Your task to perform on an android device: change the clock display to digital Image 0: 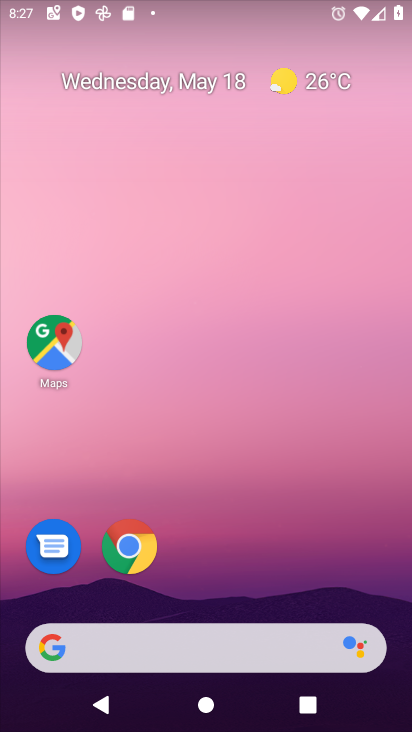
Step 0: drag from (392, 627) to (320, 33)
Your task to perform on an android device: change the clock display to digital Image 1: 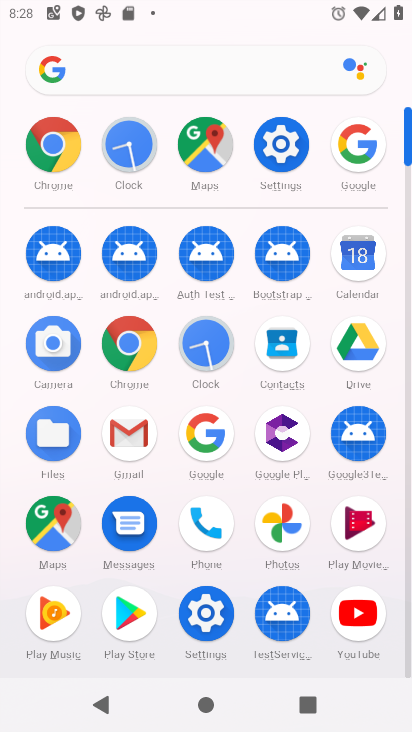
Step 1: click (206, 357)
Your task to perform on an android device: change the clock display to digital Image 2: 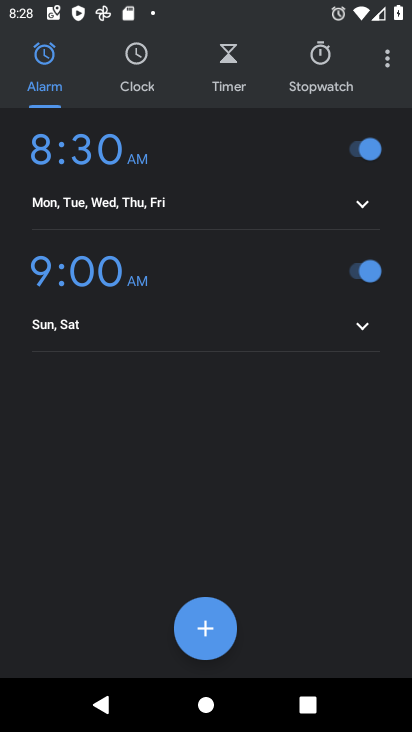
Step 2: click (391, 56)
Your task to perform on an android device: change the clock display to digital Image 3: 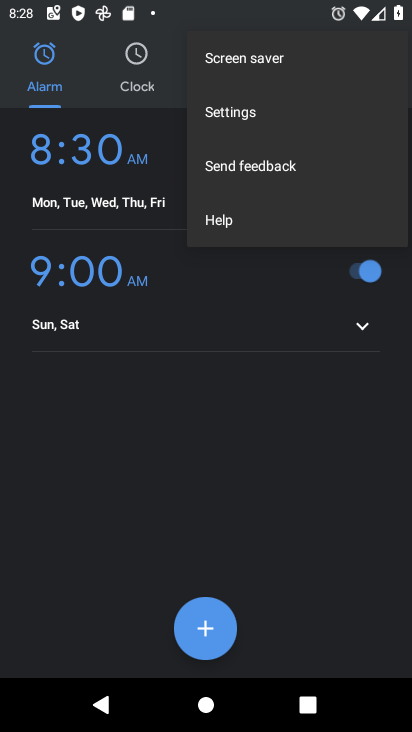
Step 3: click (291, 120)
Your task to perform on an android device: change the clock display to digital Image 4: 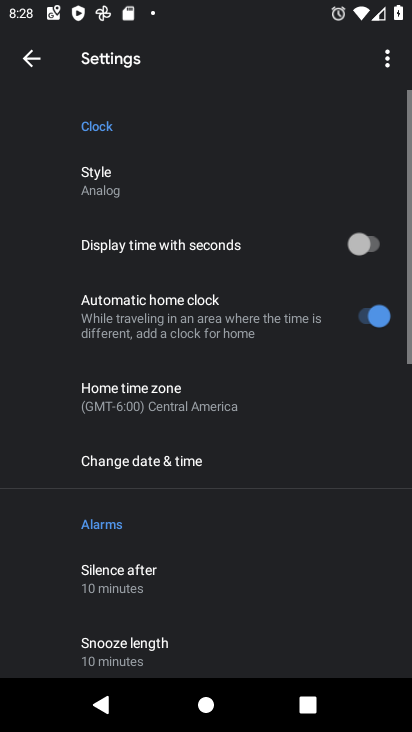
Step 4: click (138, 190)
Your task to perform on an android device: change the clock display to digital Image 5: 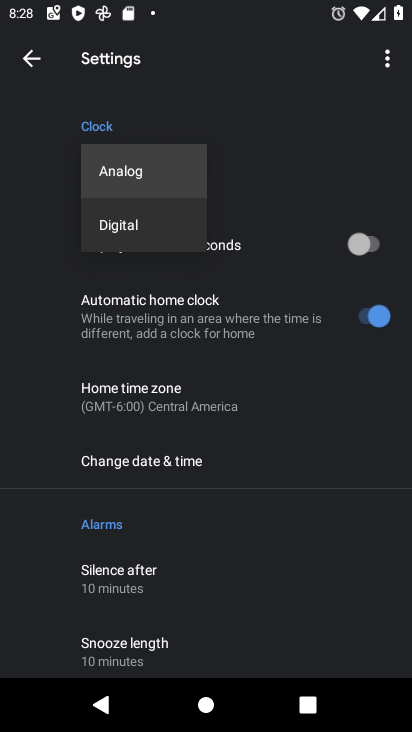
Step 5: click (156, 221)
Your task to perform on an android device: change the clock display to digital Image 6: 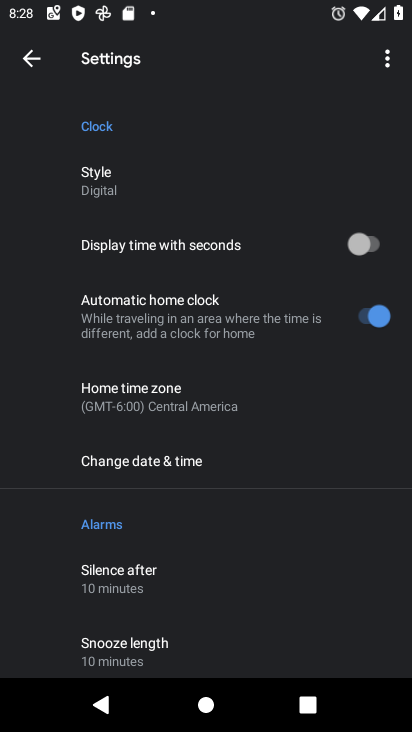
Step 6: task complete